Your task to perform on an android device: Open eBay Image 0: 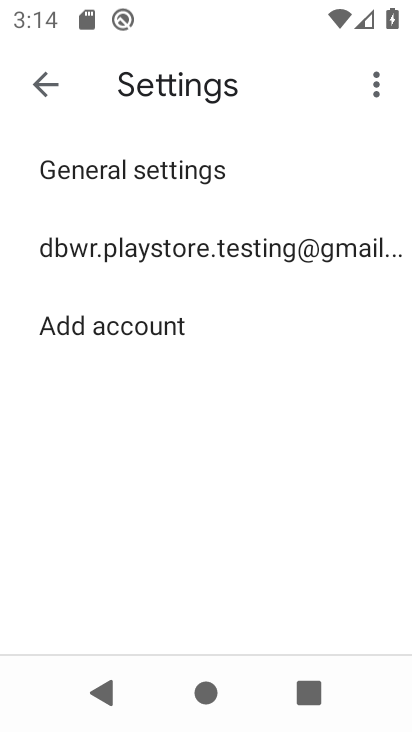
Step 0: press home button
Your task to perform on an android device: Open eBay Image 1: 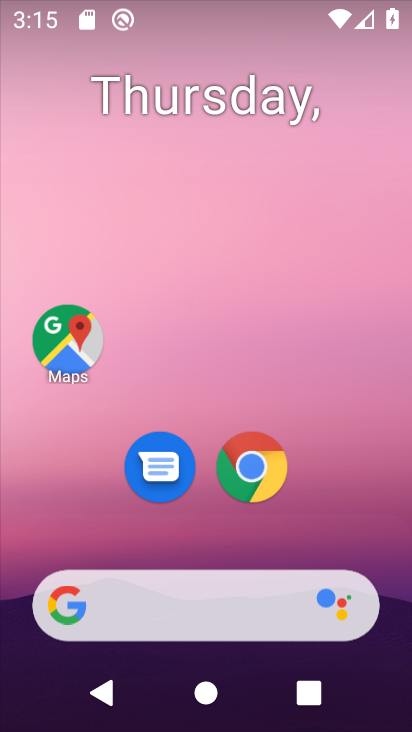
Step 1: drag from (249, 592) to (240, 2)
Your task to perform on an android device: Open eBay Image 2: 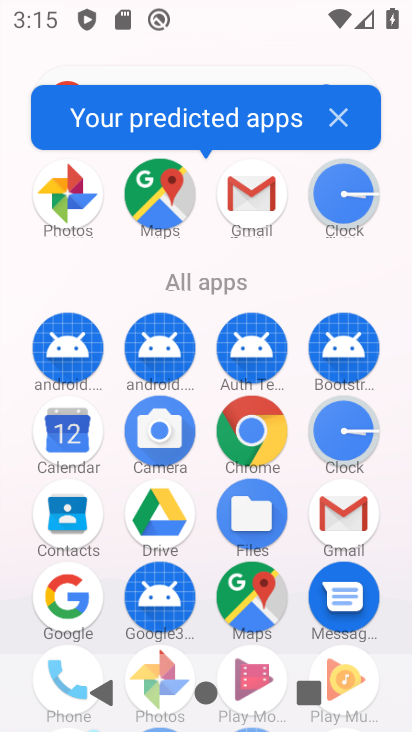
Step 2: click (240, 437)
Your task to perform on an android device: Open eBay Image 3: 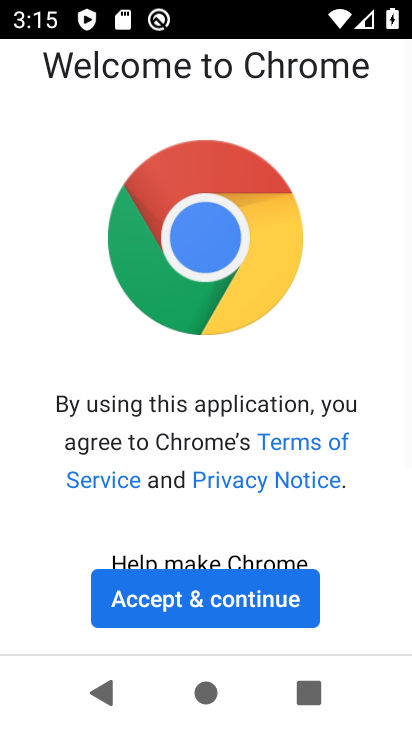
Step 3: click (260, 609)
Your task to perform on an android device: Open eBay Image 4: 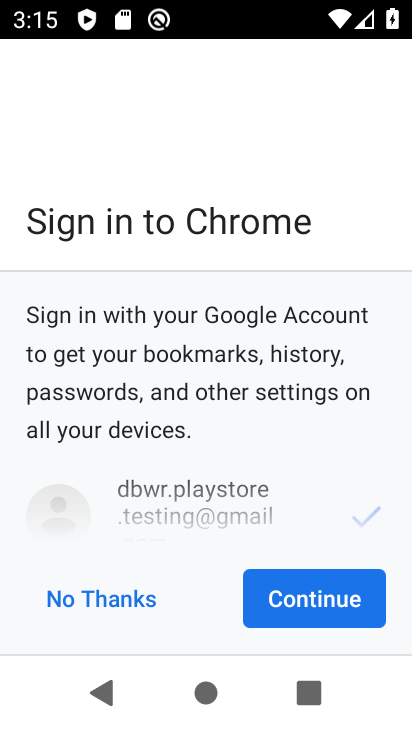
Step 4: click (135, 599)
Your task to perform on an android device: Open eBay Image 5: 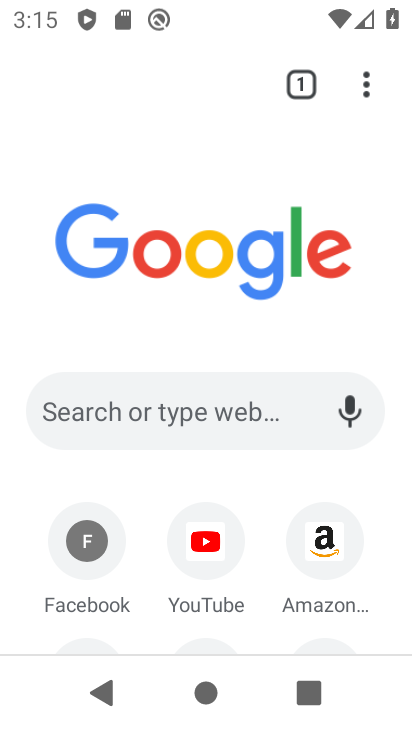
Step 5: click (323, 417)
Your task to perform on an android device: Open eBay Image 6: 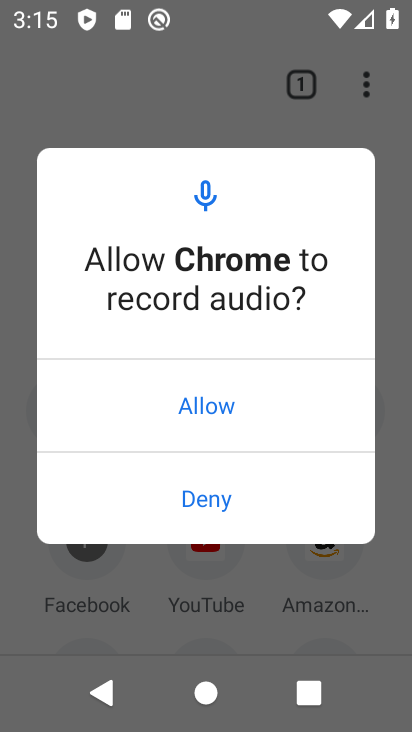
Step 6: click (193, 490)
Your task to perform on an android device: Open eBay Image 7: 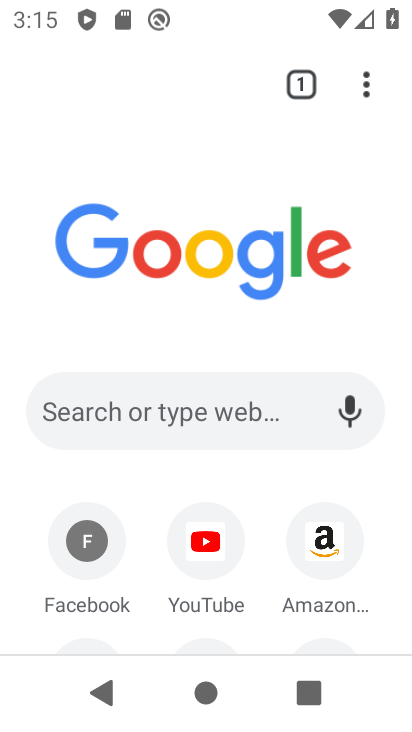
Step 7: click (198, 427)
Your task to perform on an android device: Open eBay Image 8: 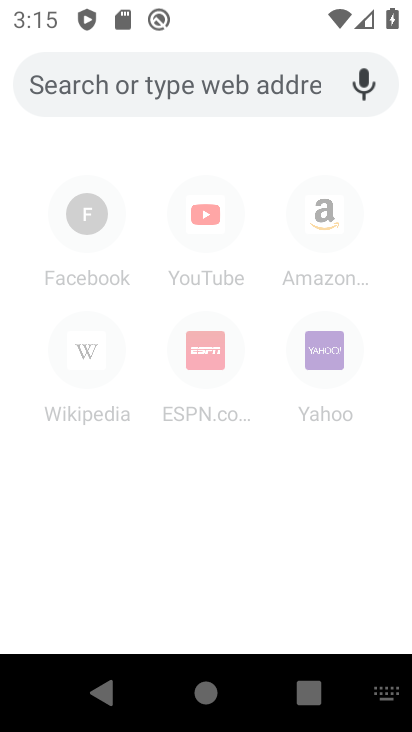
Step 8: type "ebay"
Your task to perform on an android device: Open eBay Image 9: 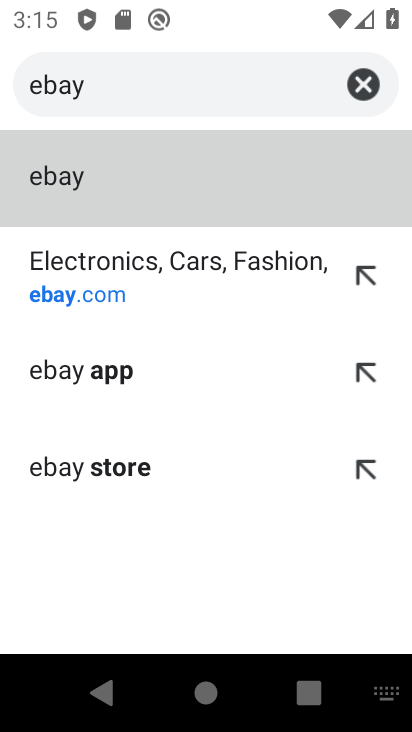
Step 9: click (168, 278)
Your task to perform on an android device: Open eBay Image 10: 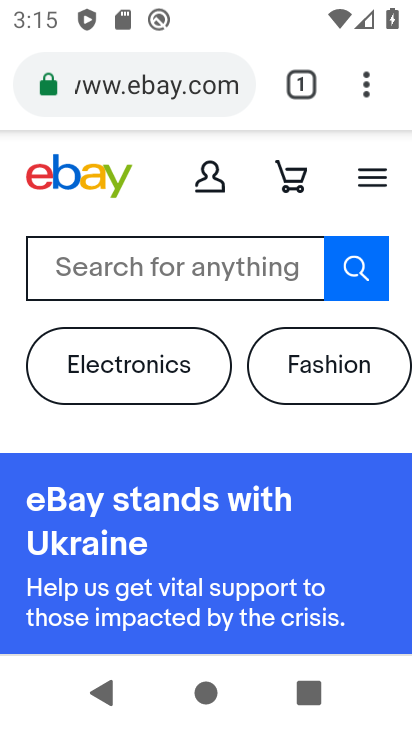
Step 10: task complete